Your task to perform on an android device: open the mobile data screen to see how much data has been used Image 0: 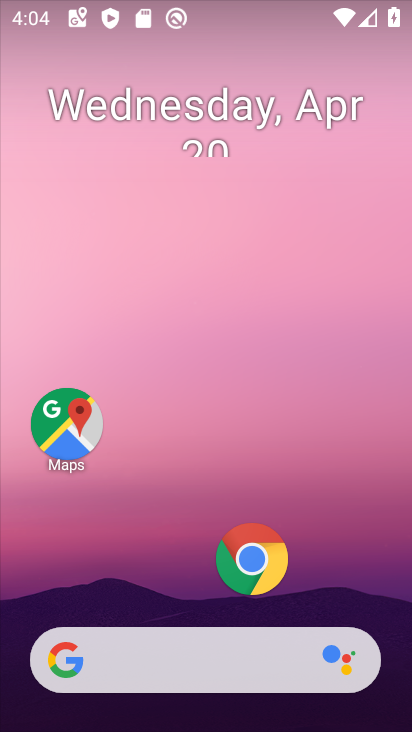
Step 0: drag from (215, 491) to (371, 259)
Your task to perform on an android device: open the mobile data screen to see how much data has been used Image 1: 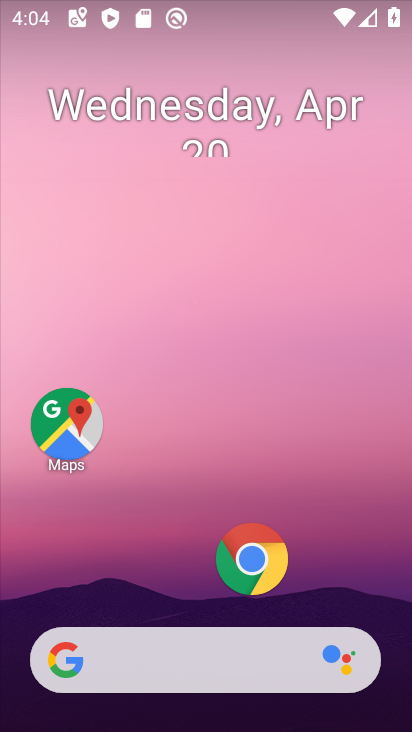
Step 1: drag from (205, 427) to (230, 197)
Your task to perform on an android device: open the mobile data screen to see how much data has been used Image 2: 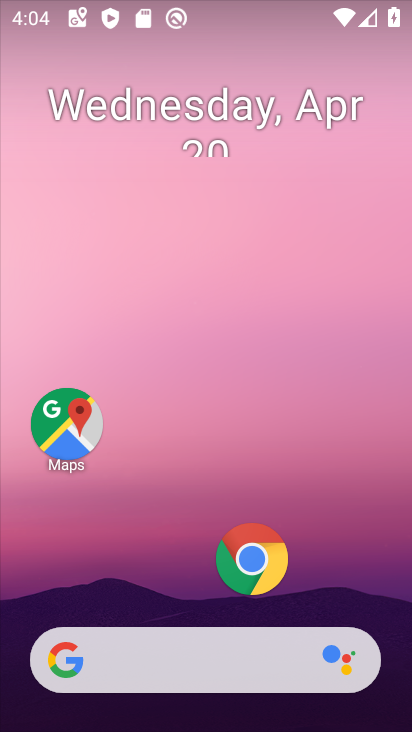
Step 2: drag from (118, 577) to (174, 261)
Your task to perform on an android device: open the mobile data screen to see how much data has been used Image 3: 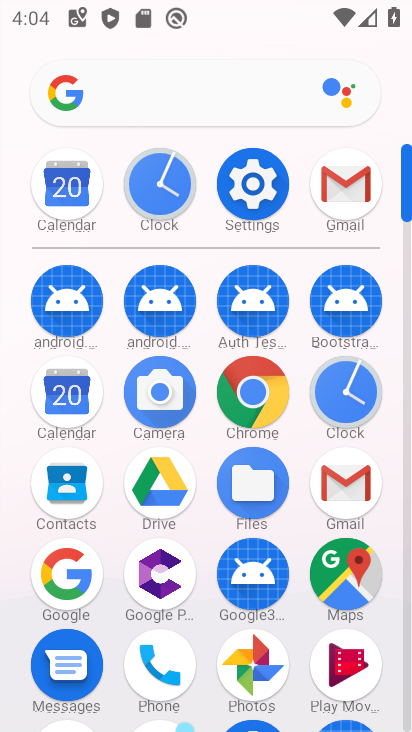
Step 3: click (253, 186)
Your task to perform on an android device: open the mobile data screen to see how much data has been used Image 4: 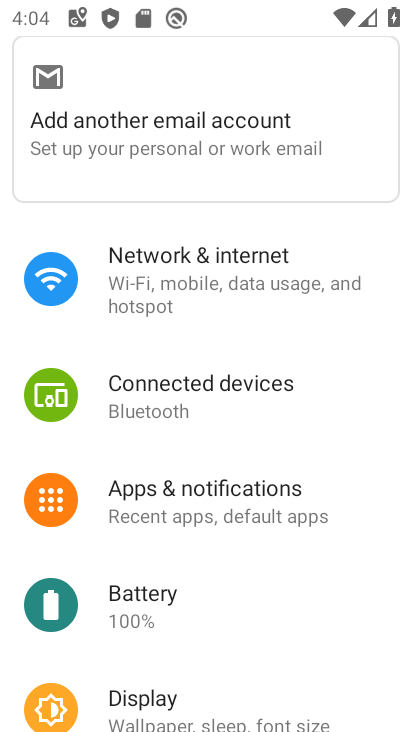
Step 4: click (139, 288)
Your task to perform on an android device: open the mobile data screen to see how much data has been used Image 5: 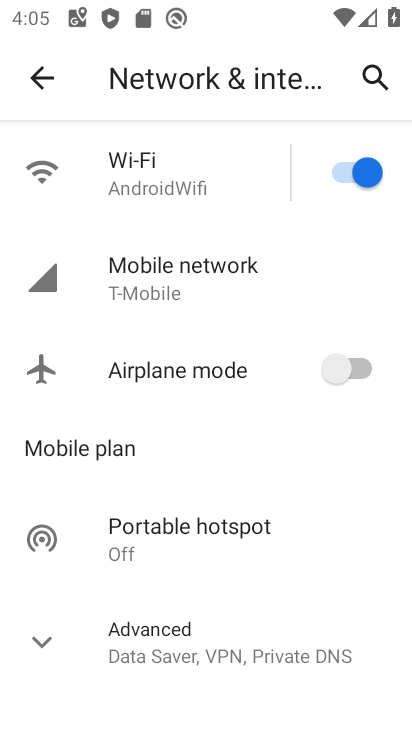
Step 5: drag from (198, 571) to (223, 328)
Your task to perform on an android device: open the mobile data screen to see how much data has been used Image 6: 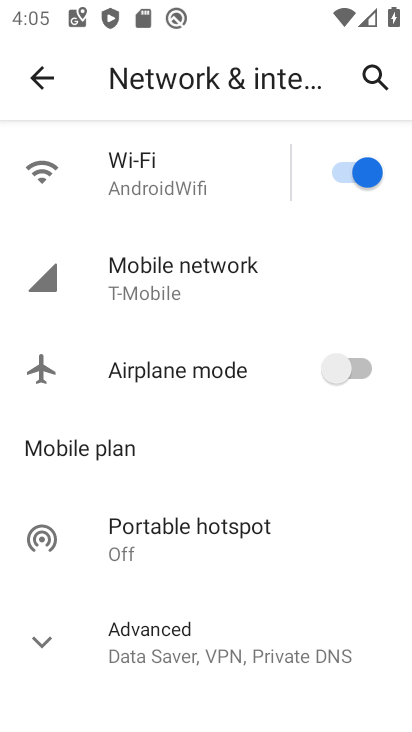
Step 6: click (147, 268)
Your task to perform on an android device: open the mobile data screen to see how much data has been used Image 7: 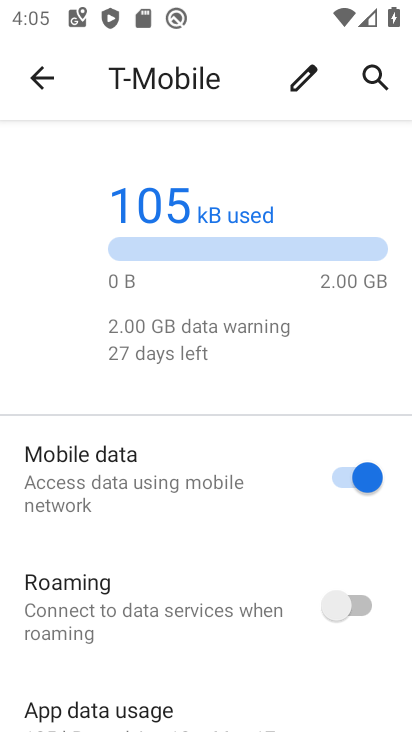
Step 7: task complete